Your task to perform on an android device: open chrome and create a bookmark for the current page Image 0: 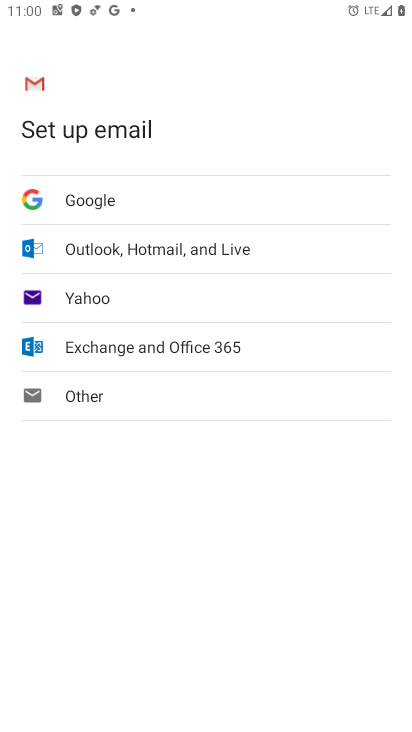
Step 0: press home button
Your task to perform on an android device: open chrome and create a bookmark for the current page Image 1: 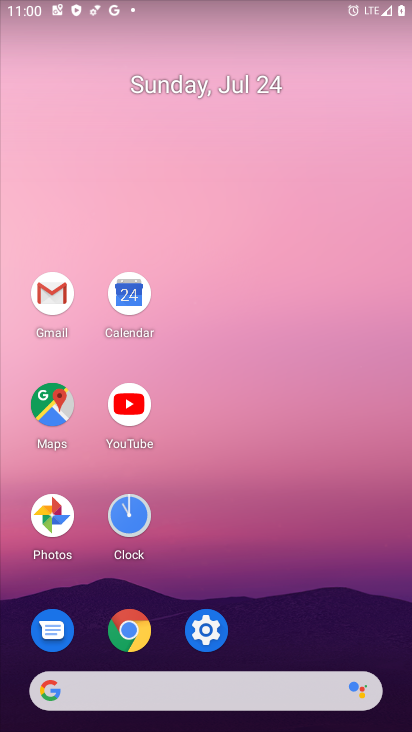
Step 1: click (130, 625)
Your task to perform on an android device: open chrome and create a bookmark for the current page Image 2: 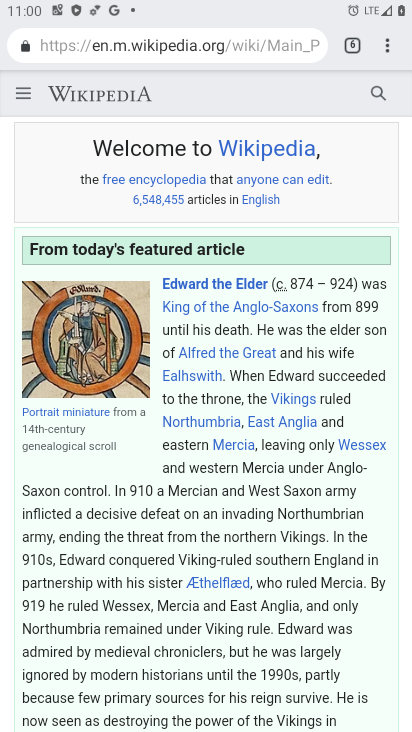
Step 2: click (389, 40)
Your task to perform on an android device: open chrome and create a bookmark for the current page Image 3: 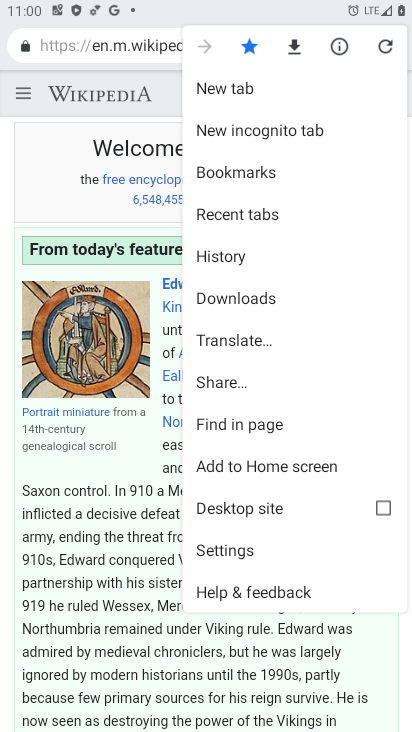
Step 3: task complete